Your task to perform on an android device: Show me popular games on the Play Store Image 0: 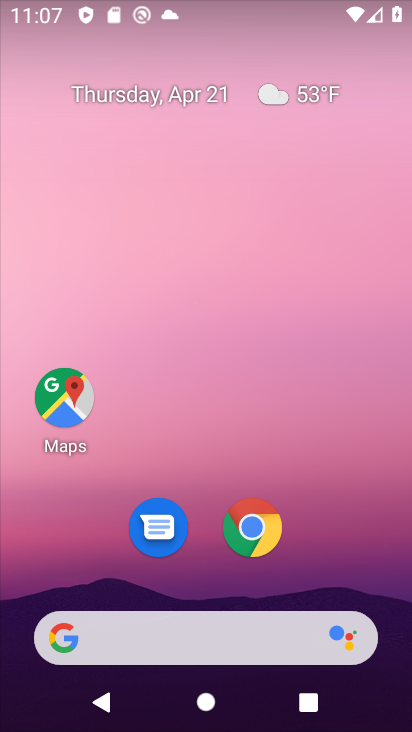
Step 0: drag from (350, 551) to (341, 153)
Your task to perform on an android device: Show me popular games on the Play Store Image 1: 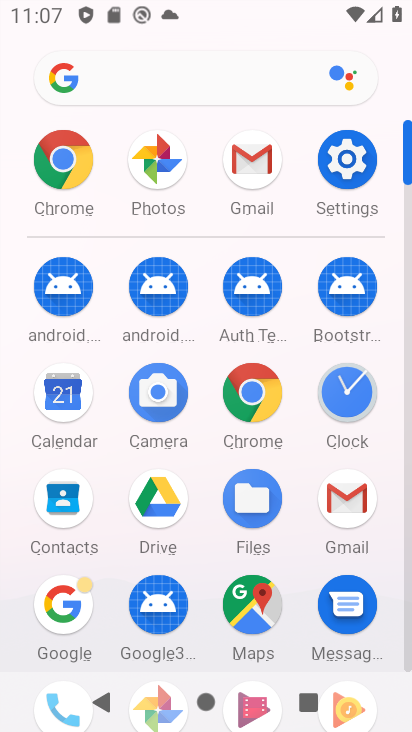
Step 1: drag from (392, 533) to (385, 199)
Your task to perform on an android device: Show me popular games on the Play Store Image 2: 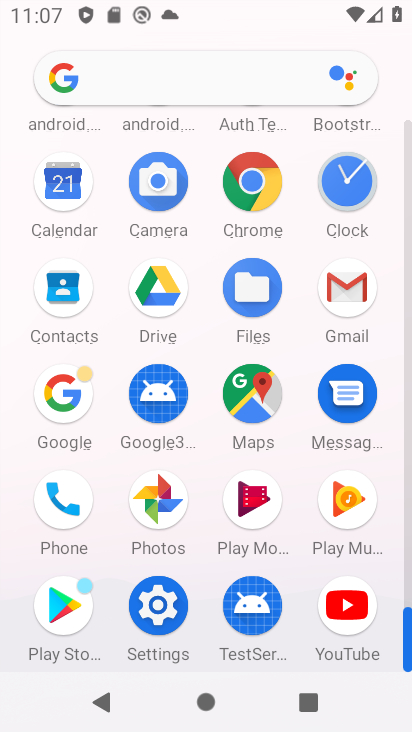
Step 2: click (70, 605)
Your task to perform on an android device: Show me popular games on the Play Store Image 3: 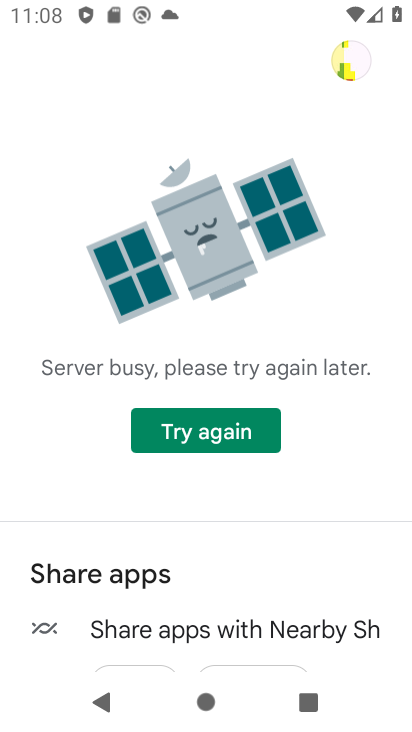
Step 3: task complete